Your task to perform on an android device: Add "razer nari" to the cart on ebay.com Image 0: 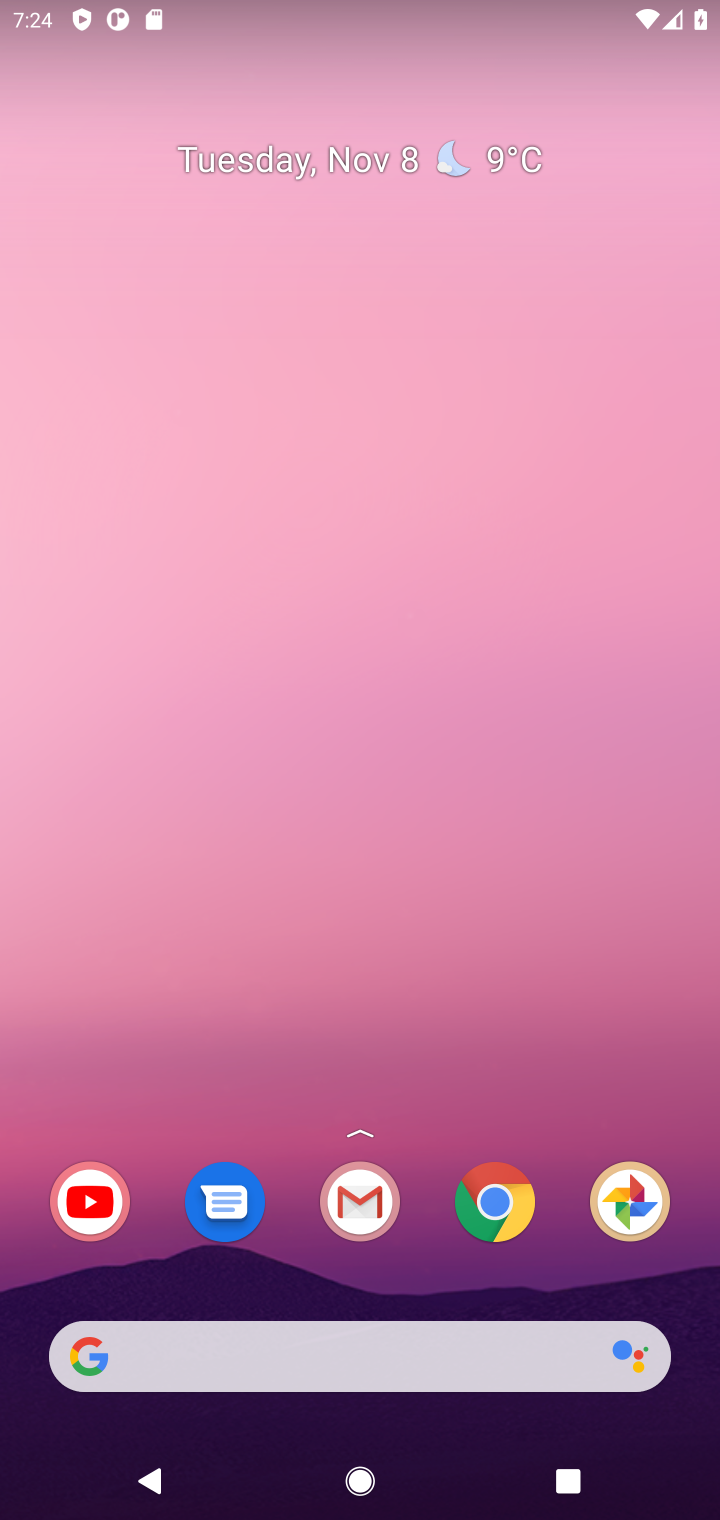
Step 0: click (285, 1359)
Your task to perform on an android device: Add "razer nari" to the cart on ebay.com Image 1: 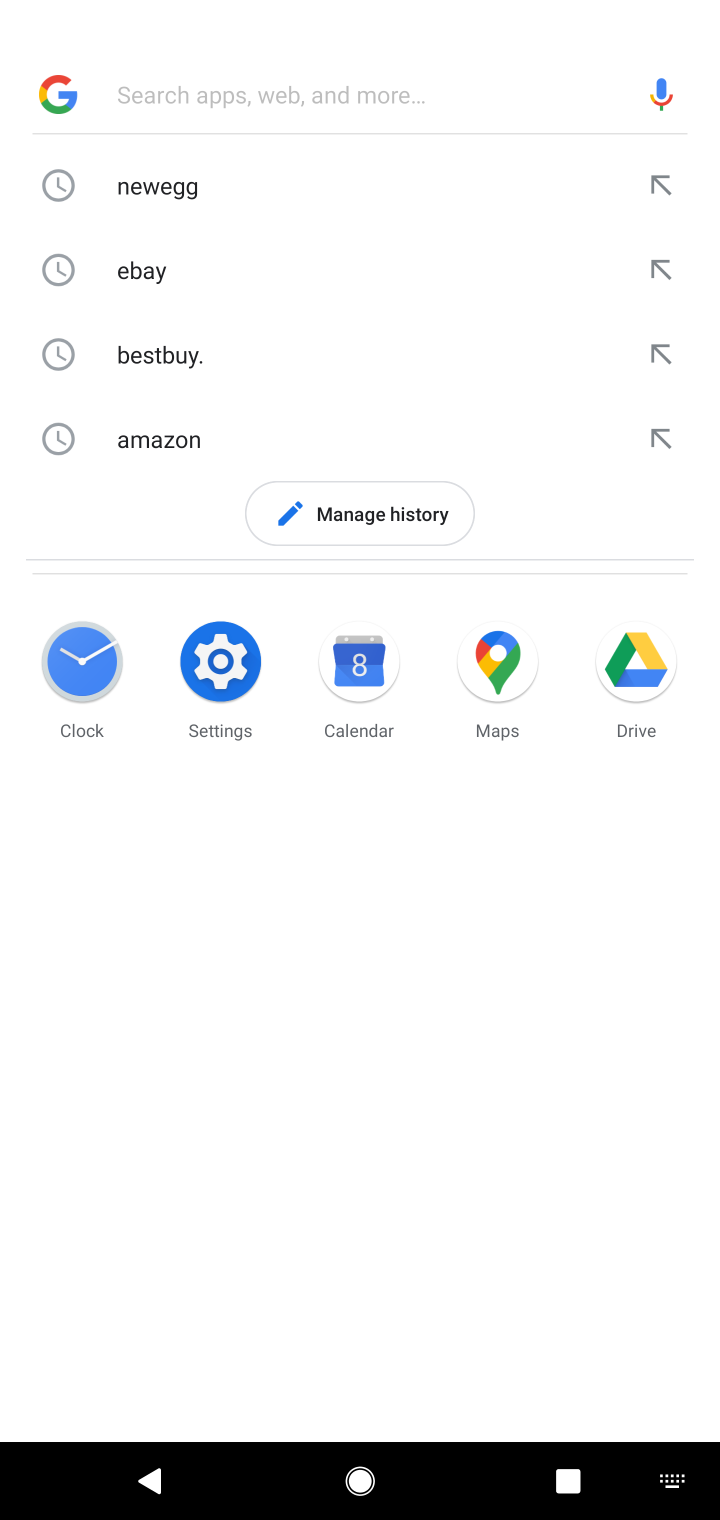
Step 1: type "ebay.com"
Your task to perform on an android device: Add "razer nari" to the cart on ebay.com Image 2: 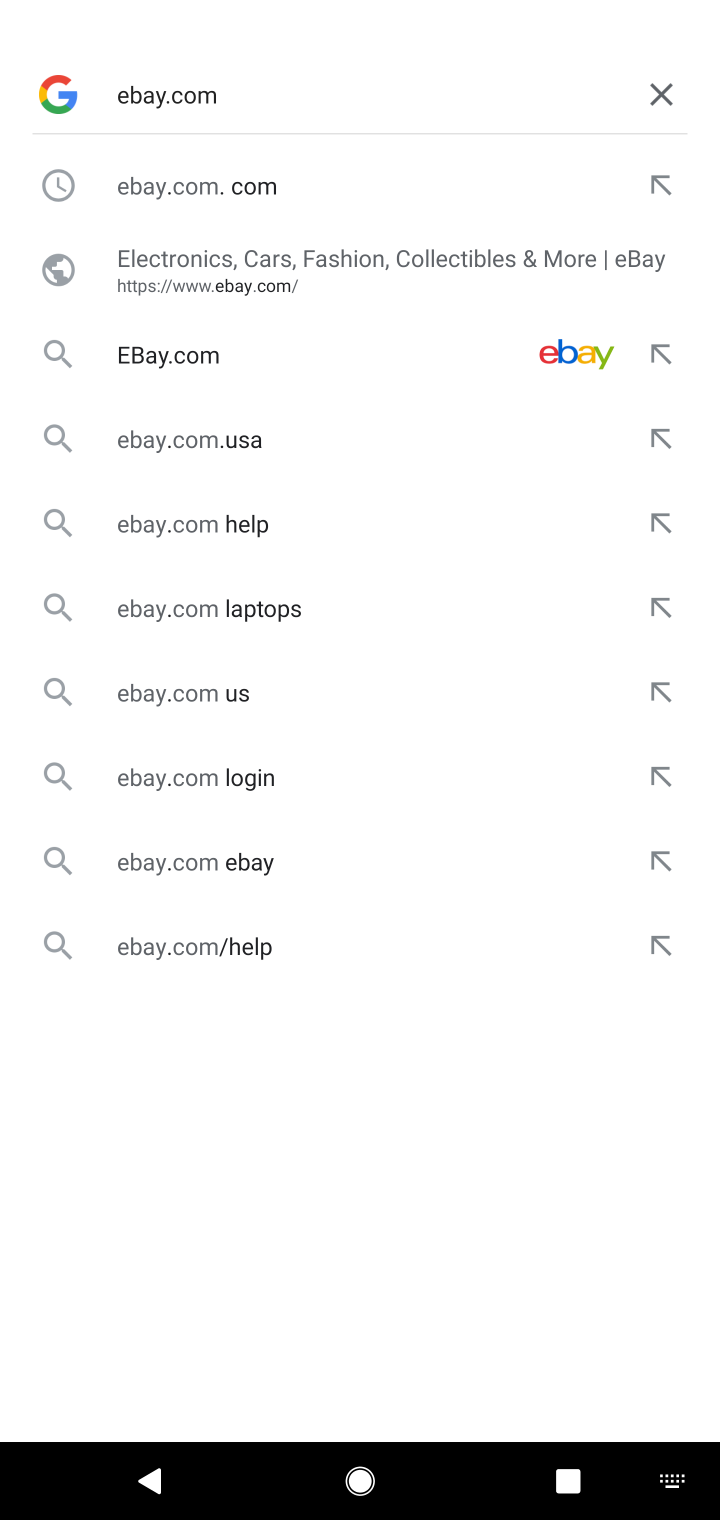
Step 2: press enter
Your task to perform on an android device: Add "razer nari" to the cart on ebay.com Image 3: 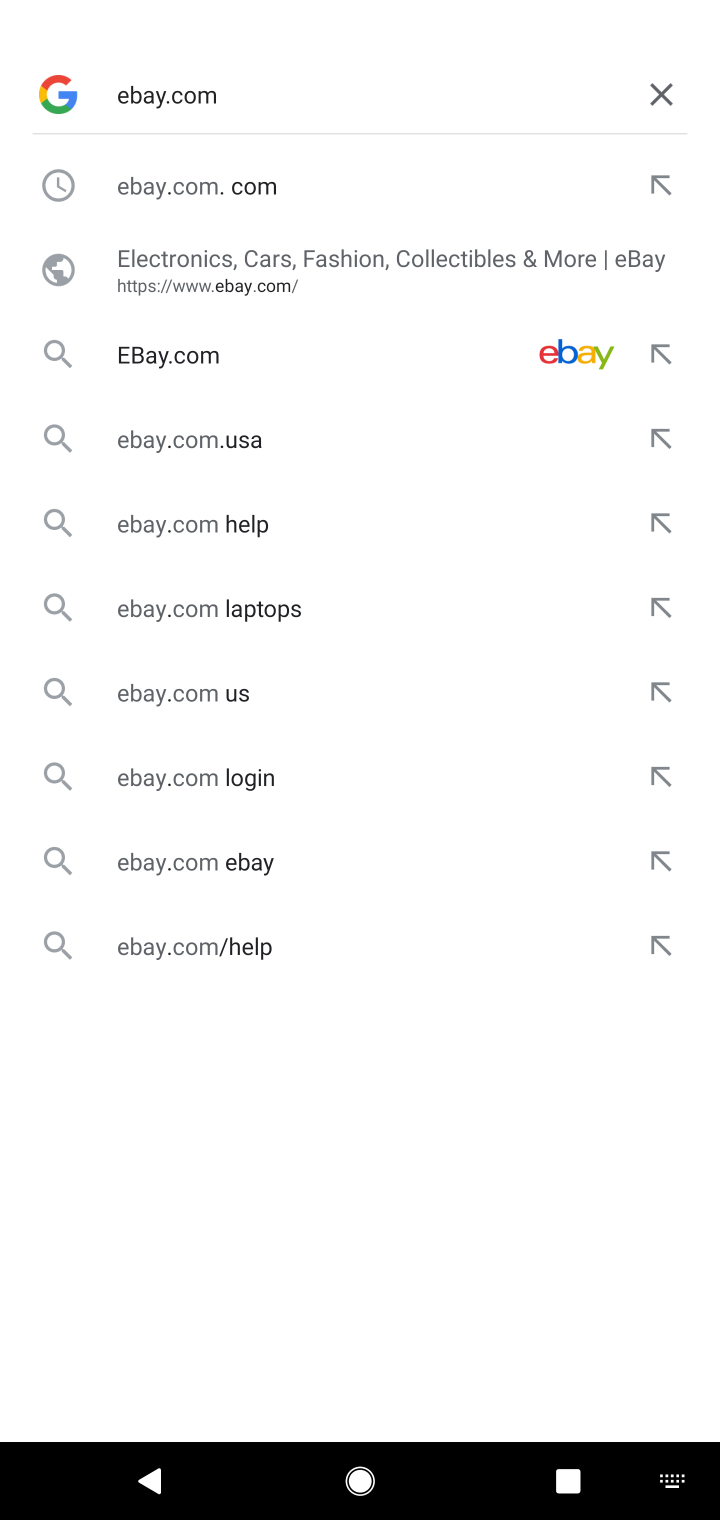
Step 3: type ""
Your task to perform on an android device: Add "razer nari" to the cart on ebay.com Image 4: 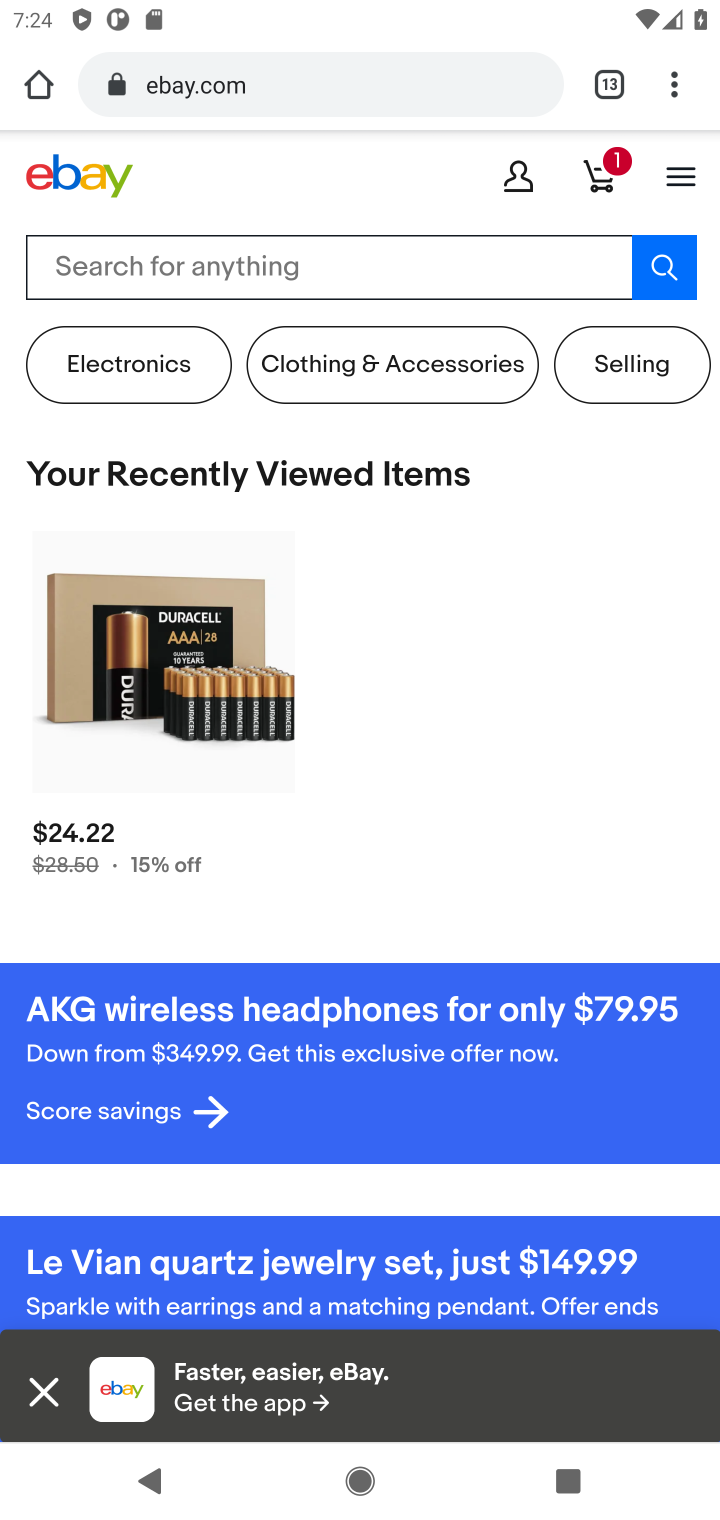
Step 4: click (204, 265)
Your task to perform on an android device: Add "razer nari" to the cart on ebay.com Image 5: 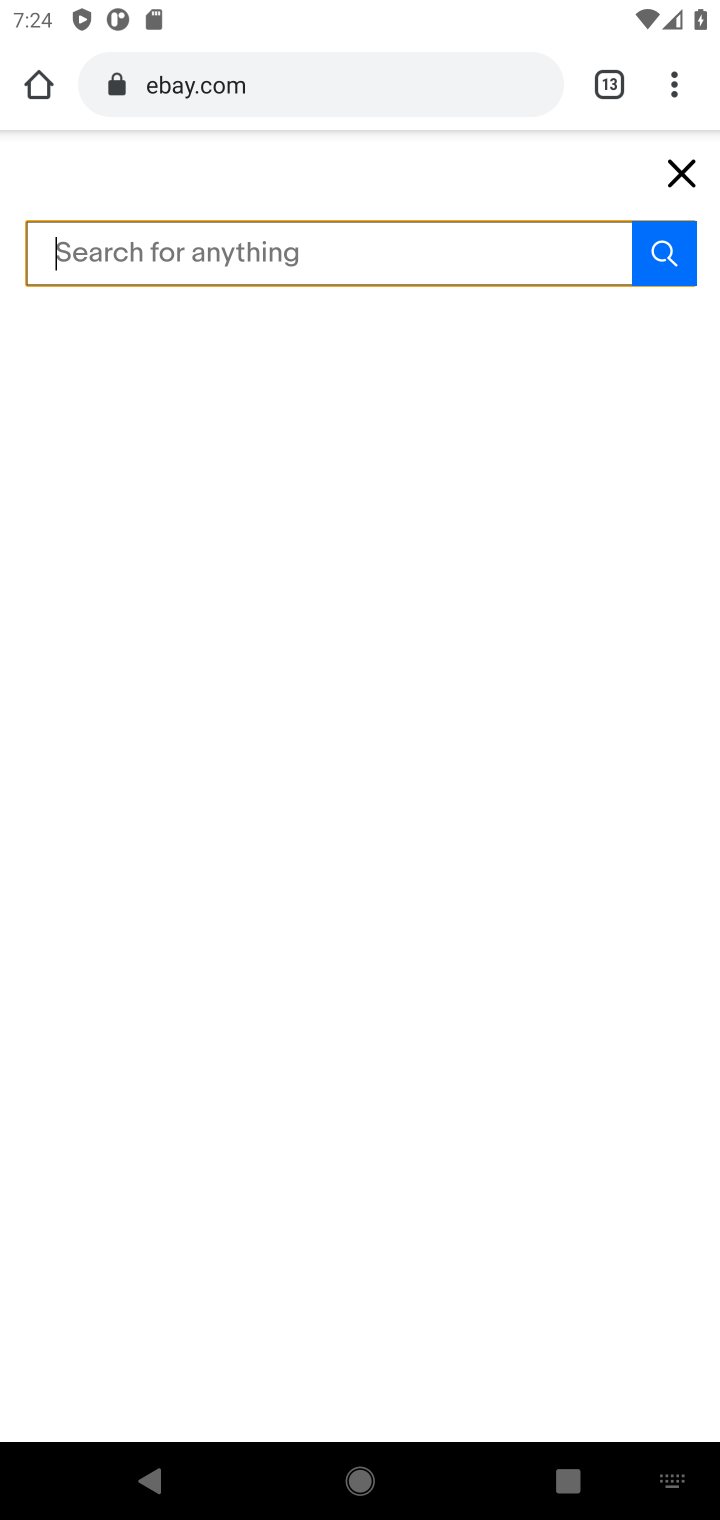
Step 5: type "razer nari"
Your task to perform on an android device: Add "razer nari" to the cart on ebay.com Image 6: 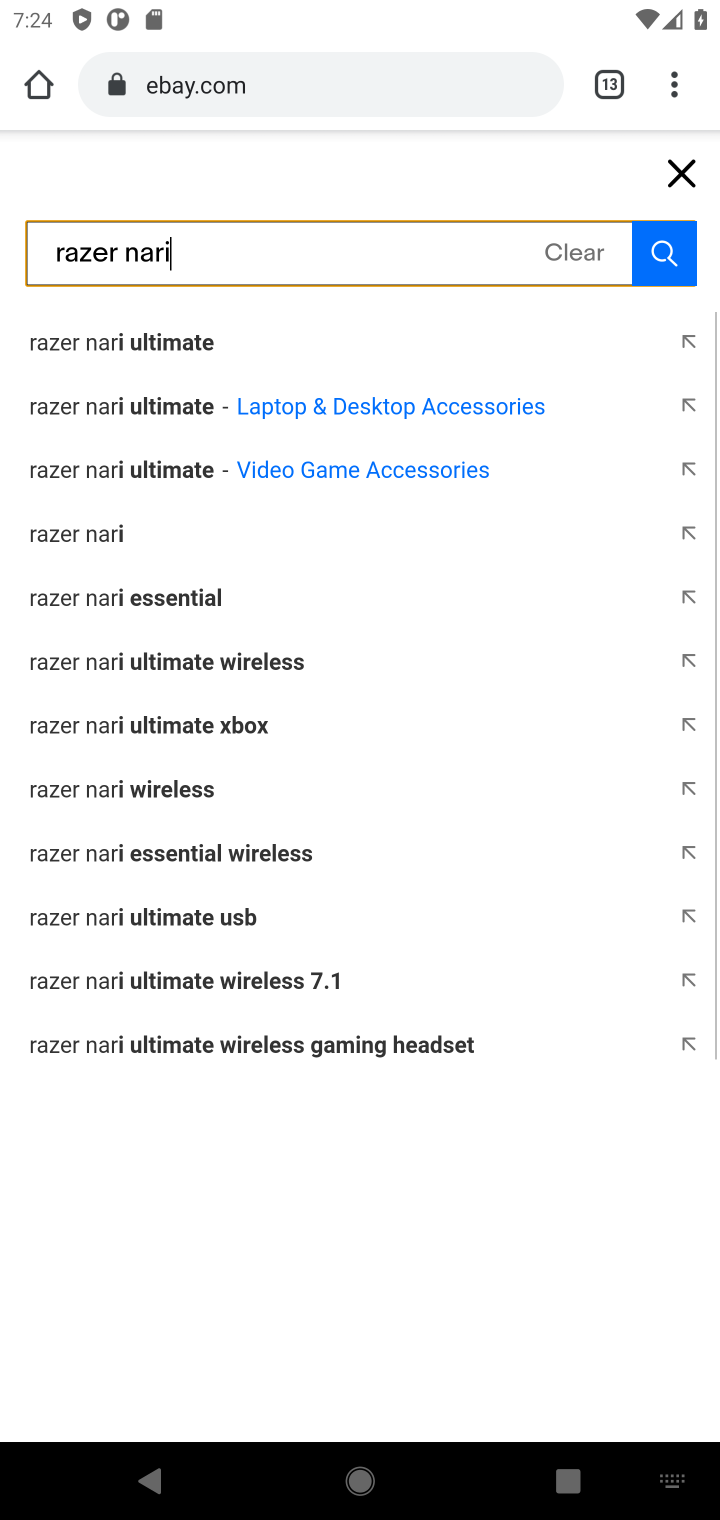
Step 6: press enter
Your task to perform on an android device: Add "razer nari" to the cart on ebay.com Image 7: 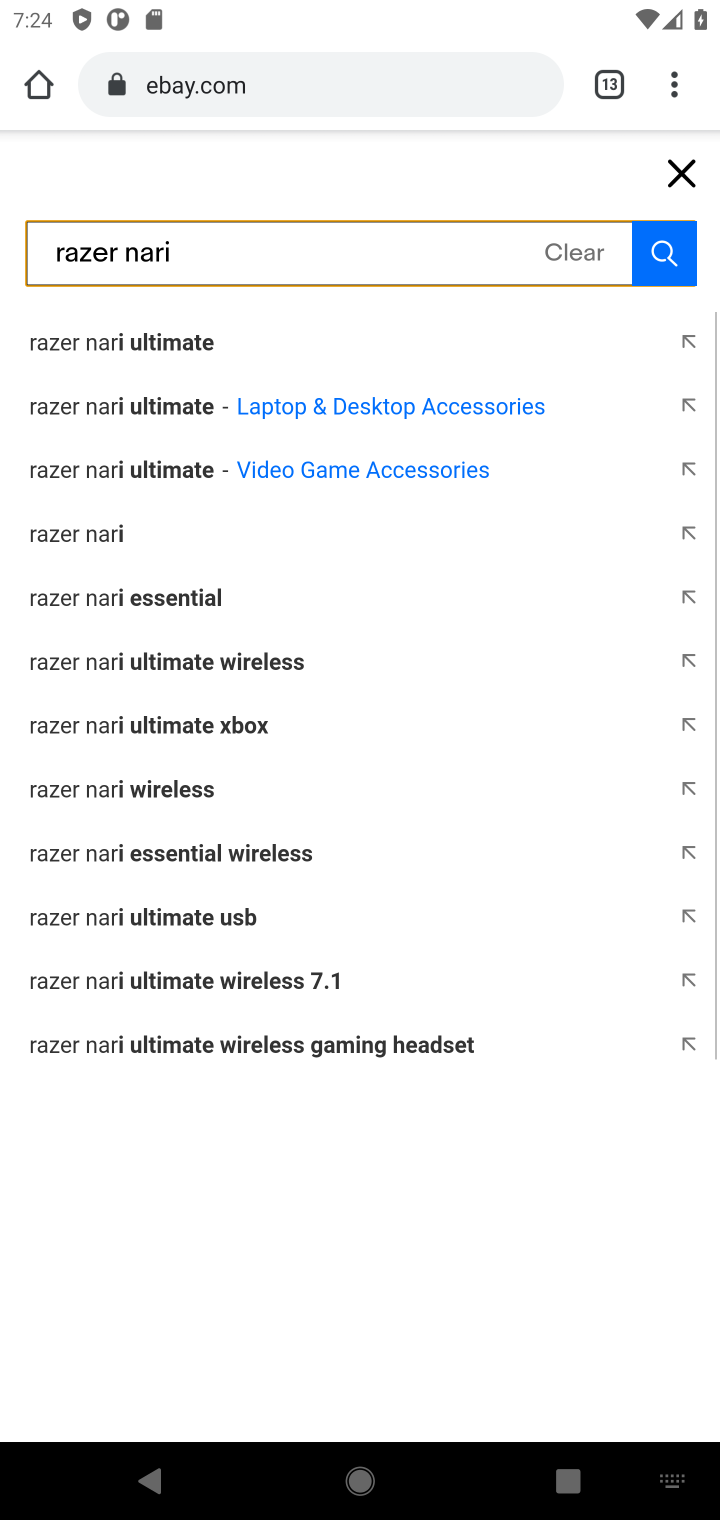
Step 7: type ""
Your task to perform on an android device: Add "razer nari" to the cart on ebay.com Image 8: 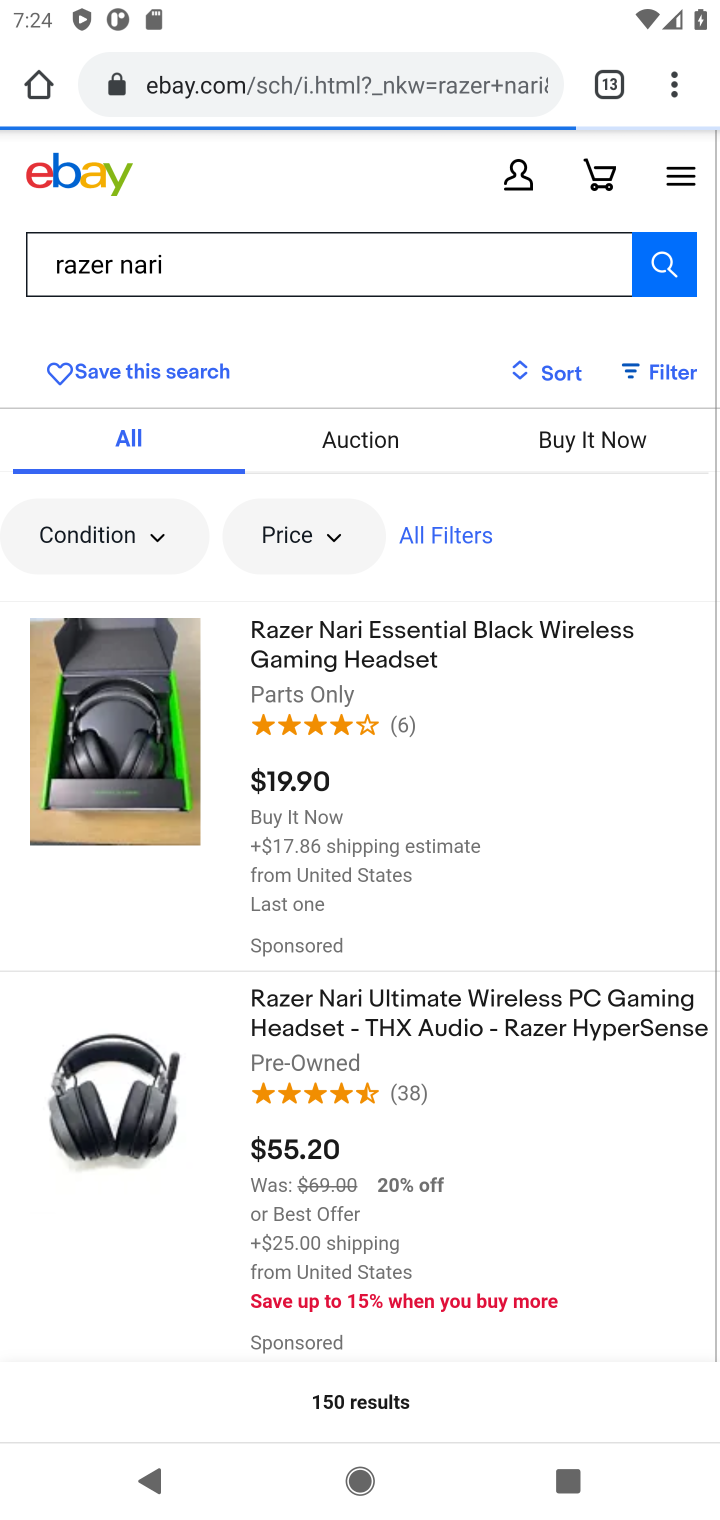
Step 8: click (656, 251)
Your task to perform on an android device: Add "razer nari" to the cart on ebay.com Image 9: 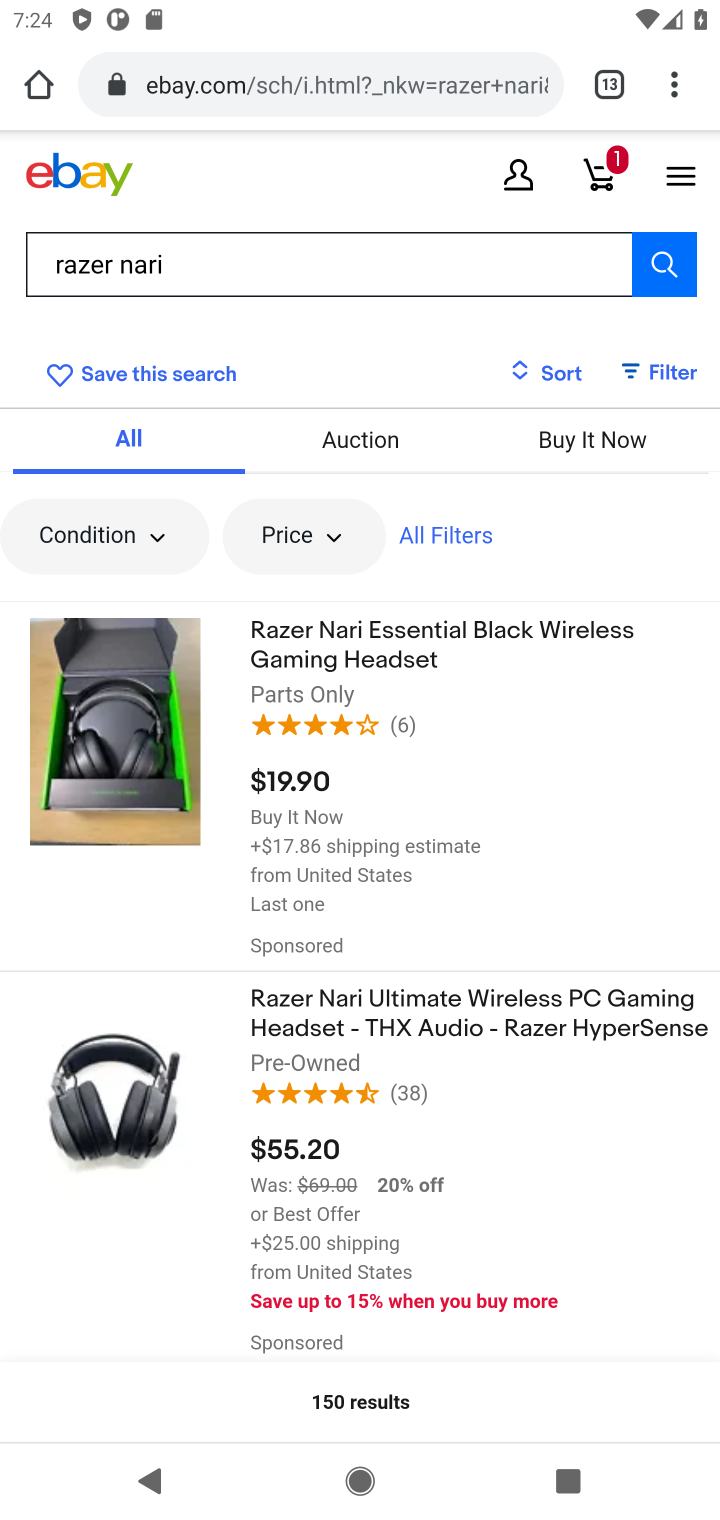
Step 9: click (368, 620)
Your task to perform on an android device: Add "razer nari" to the cart on ebay.com Image 10: 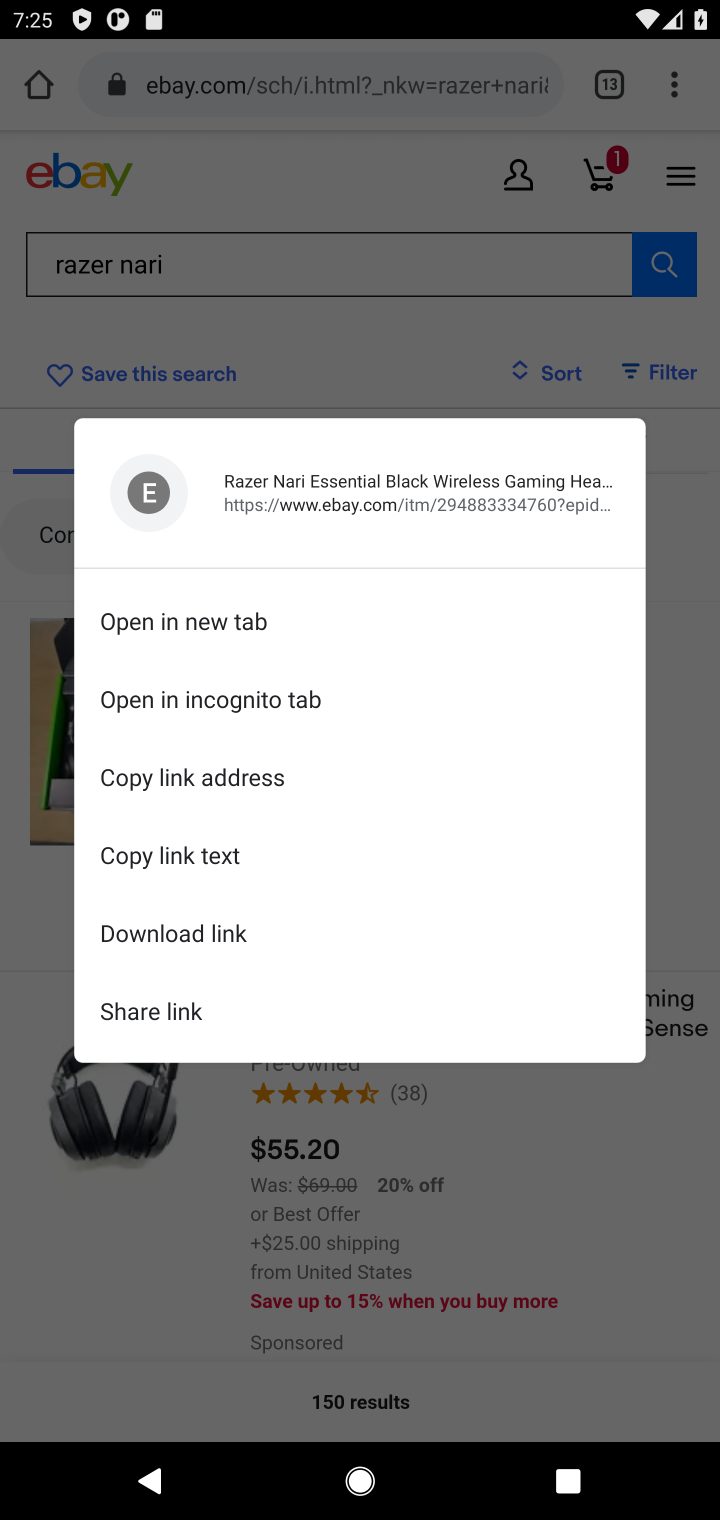
Step 10: click (671, 637)
Your task to perform on an android device: Add "razer nari" to the cart on ebay.com Image 11: 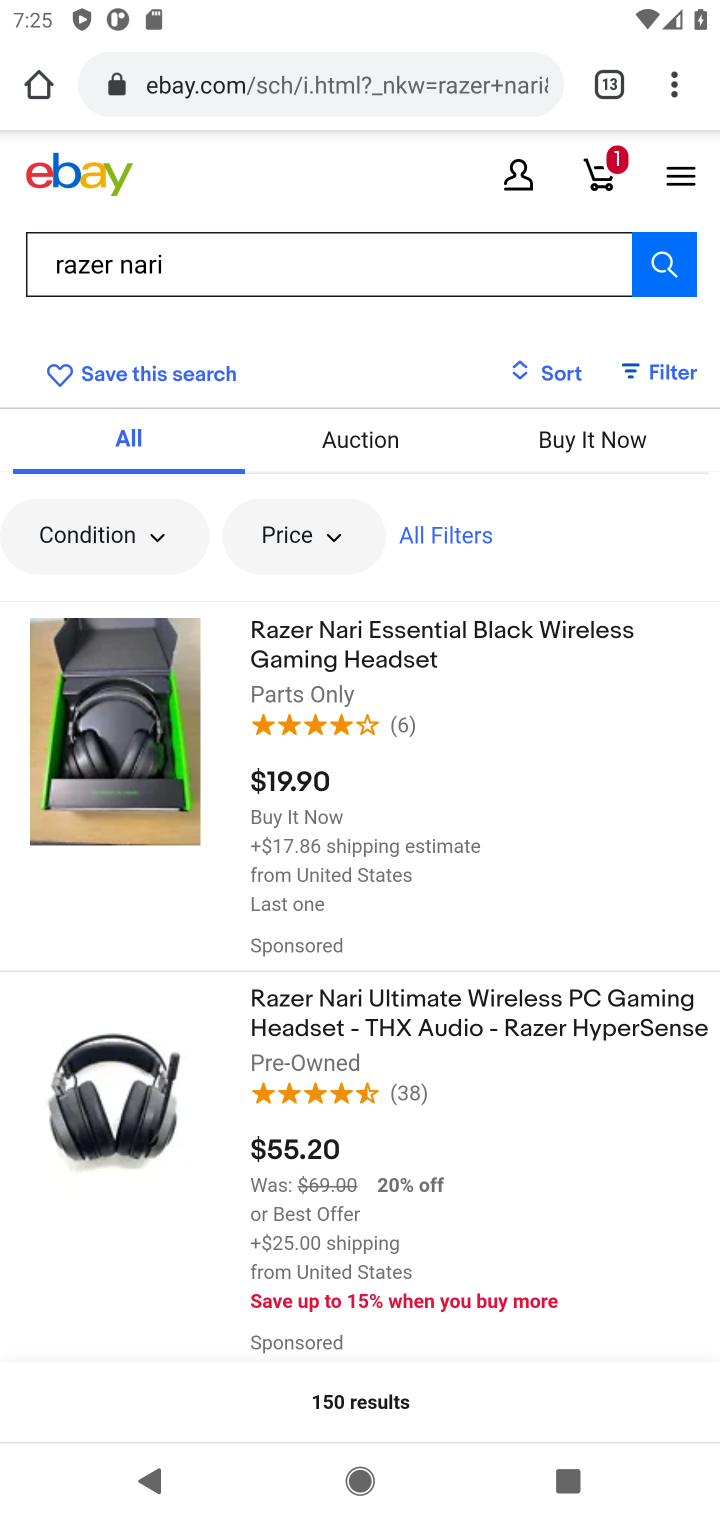
Step 11: click (284, 666)
Your task to perform on an android device: Add "razer nari" to the cart on ebay.com Image 12: 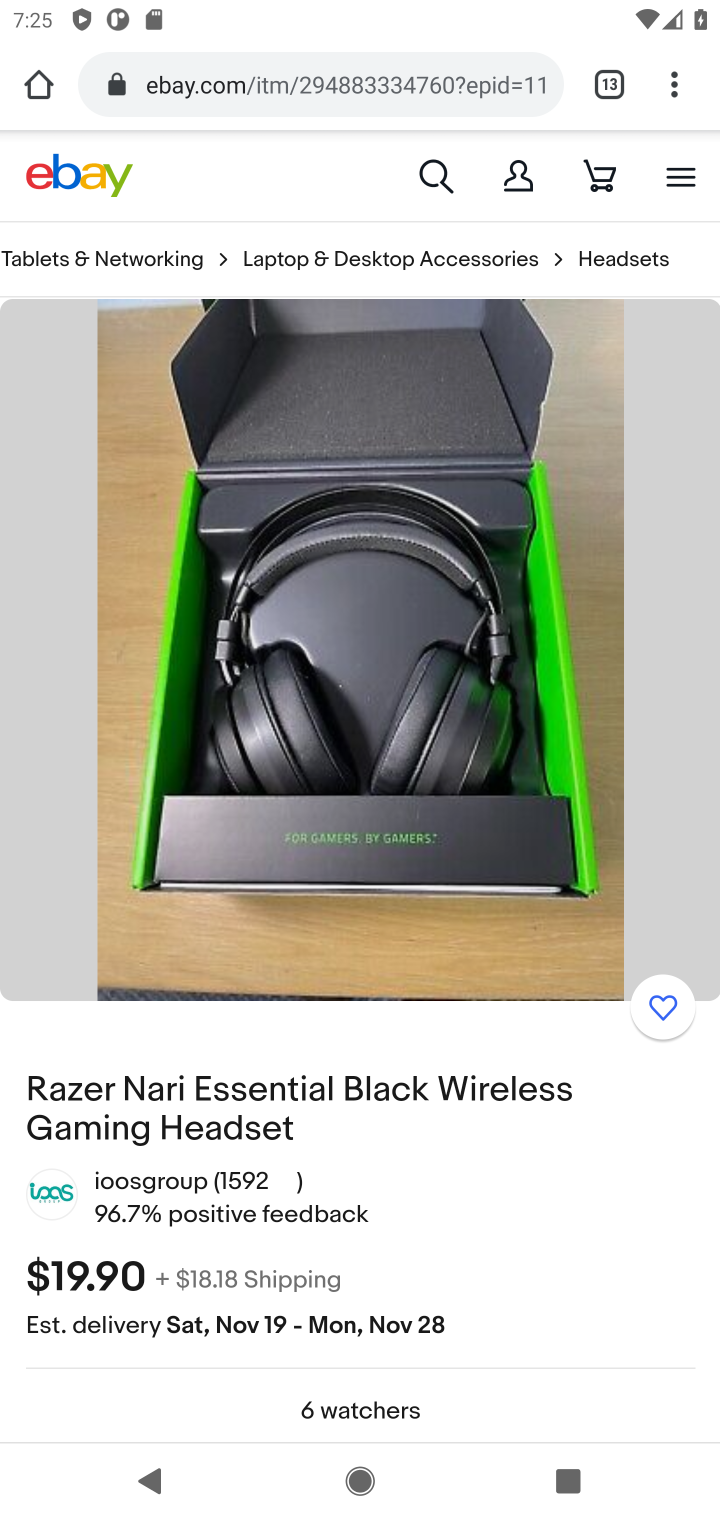
Step 12: drag from (272, 1177) to (303, 524)
Your task to perform on an android device: Add "razer nari" to the cart on ebay.com Image 13: 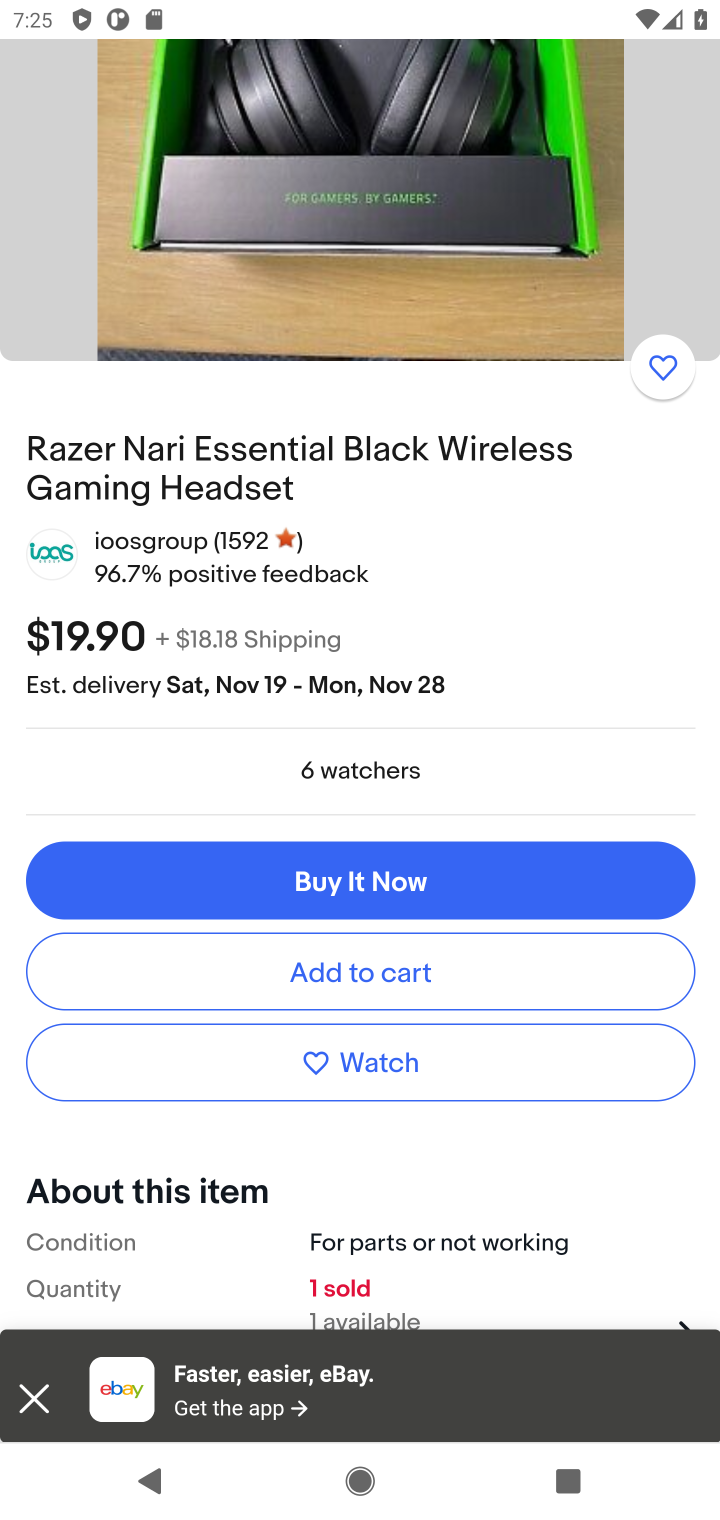
Step 13: click (364, 961)
Your task to perform on an android device: Add "razer nari" to the cart on ebay.com Image 14: 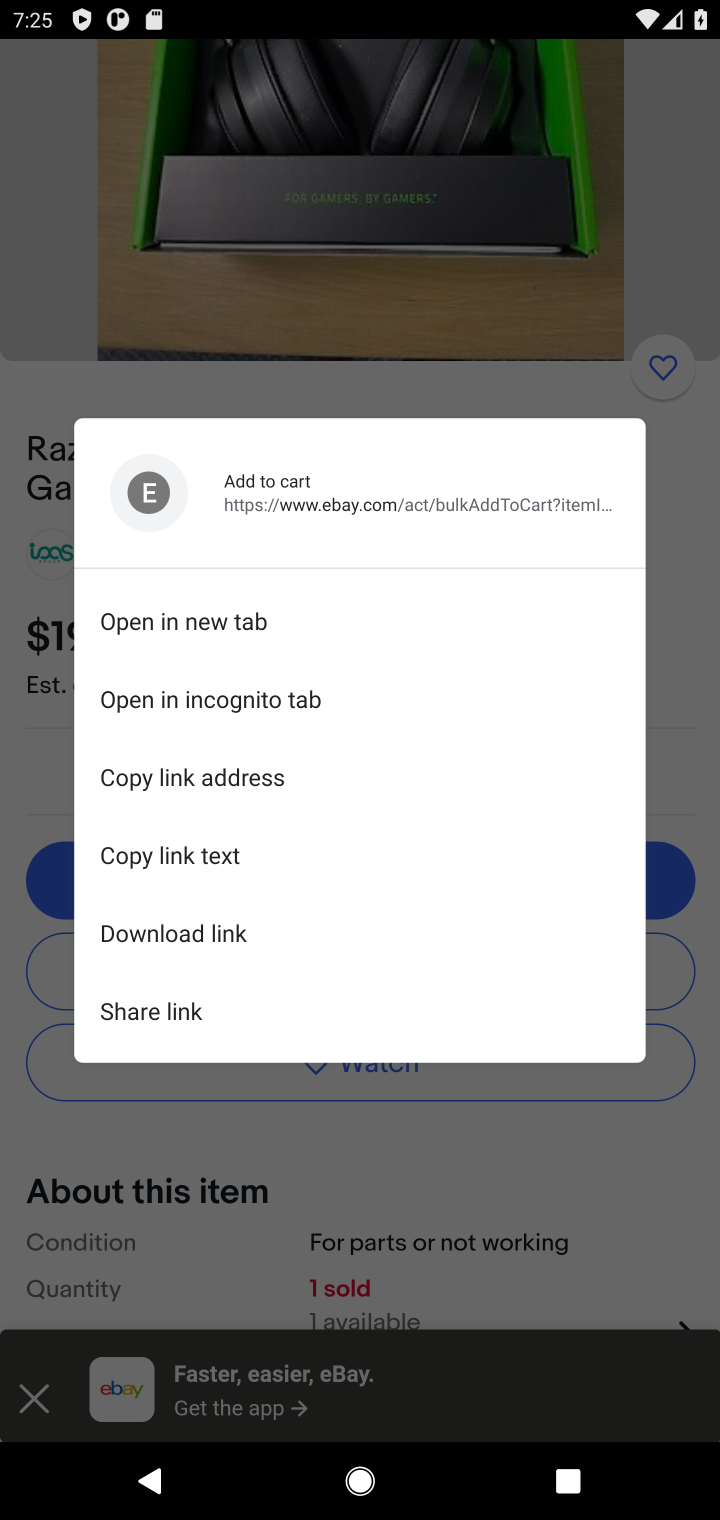
Step 14: click (348, 1152)
Your task to perform on an android device: Add "razer nari" to the cart on ebay.com Image 15: 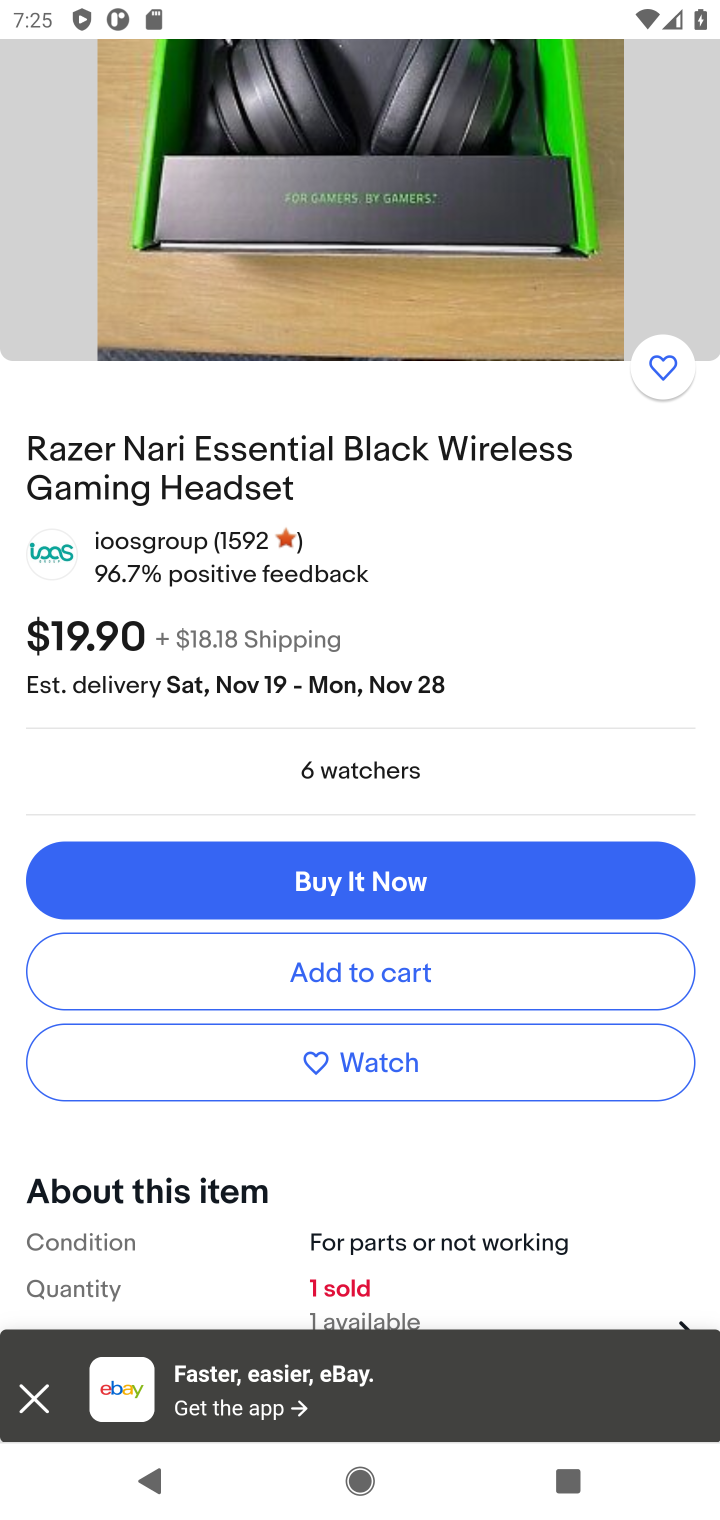
Step 15: click (360, 977)
Your task to perform on an android device: Add "razer nari" to the cart on ebay.com Image 16: 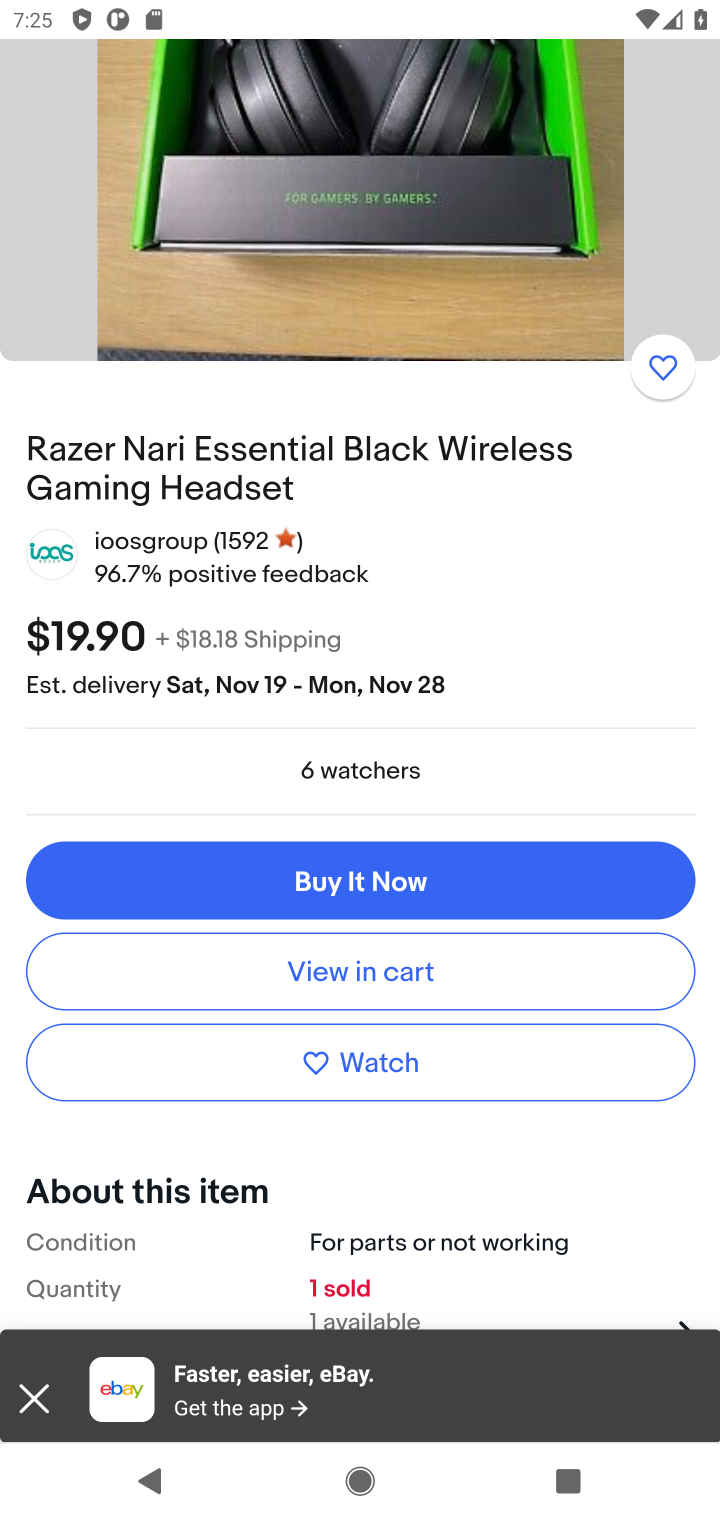
Step 16: drag from (643, 423) to (557, 1492)
Your task to perform on an android device: Add "razer nari" to the cart on ebay.com Image 17: 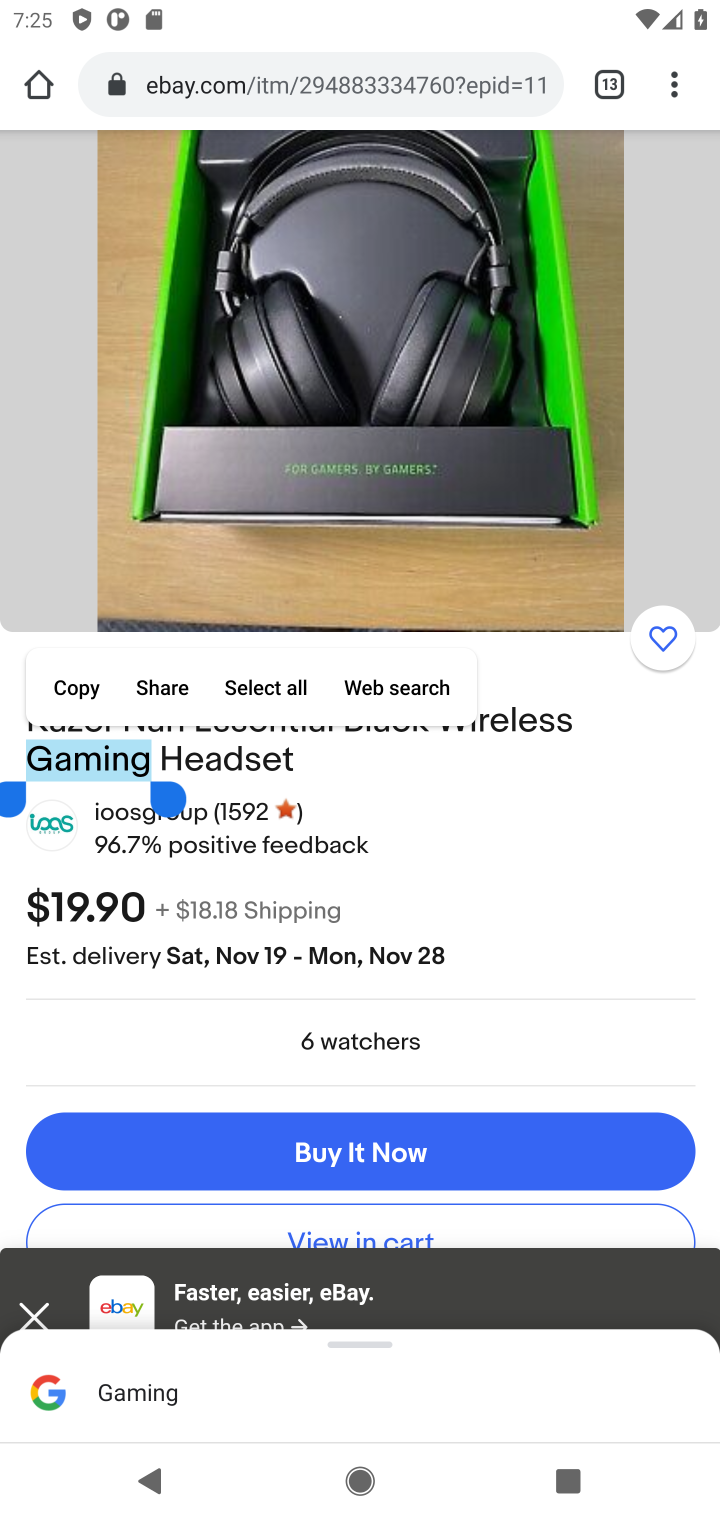
Step 17: click (40, 1313)
Your task to perform on an android device: Add "razer nari" to the cart on ebay.com Image 18: 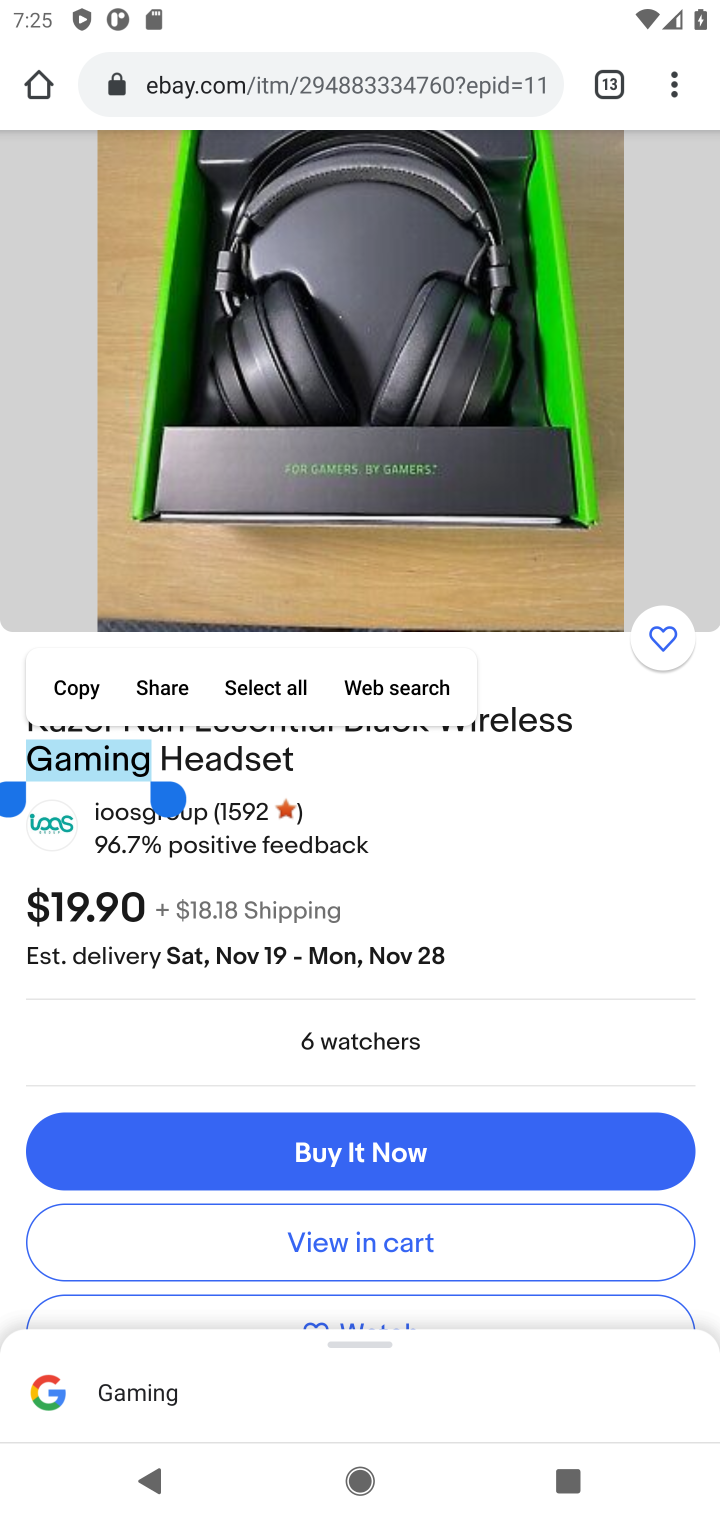
Step 18: drag from (654, 695) to (654, 1258)
Your task to perform on an android device: Add "razer nari" to the cart on ebay.com Image 19: 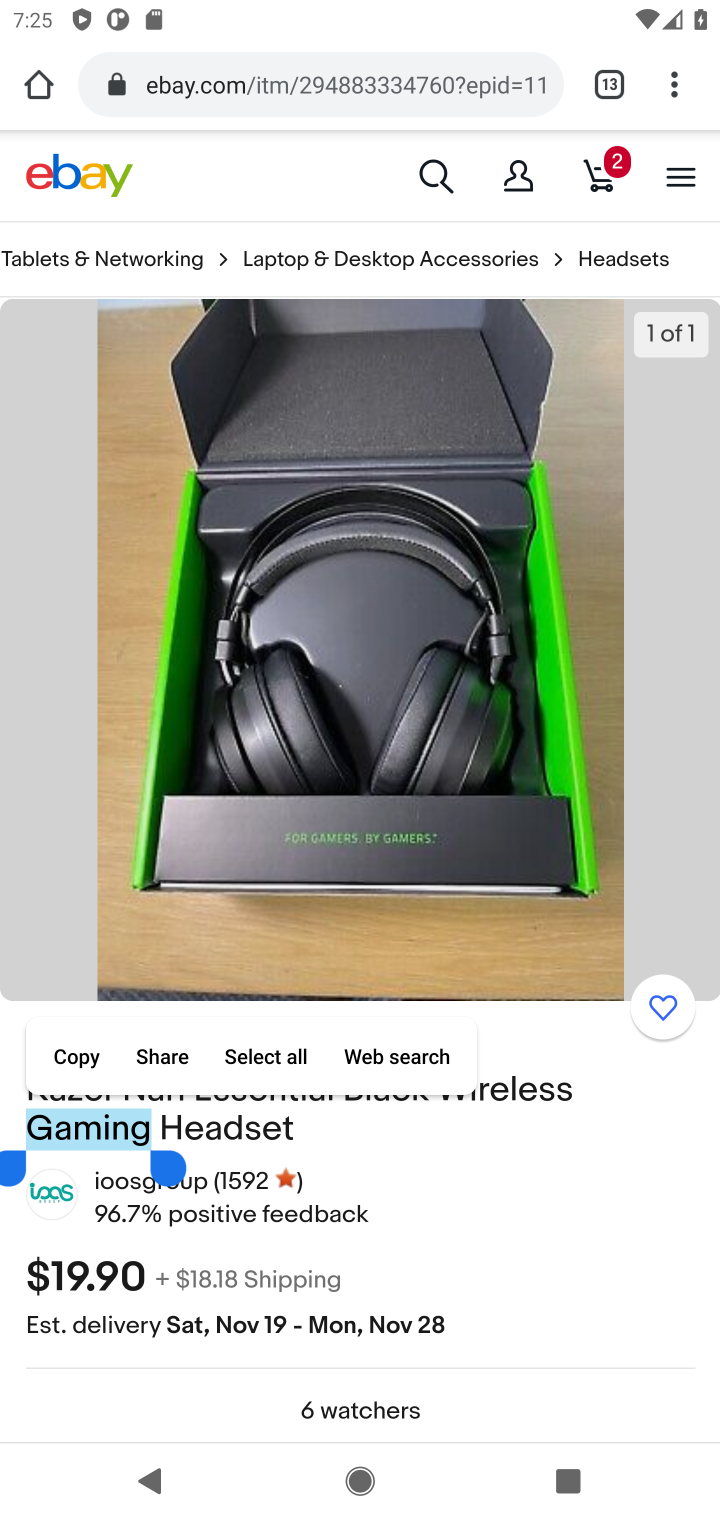
Step 19: click (603, 175)
Your task to perform on an android device: Add "razer nari" to the cart on ebay.com Image 20: 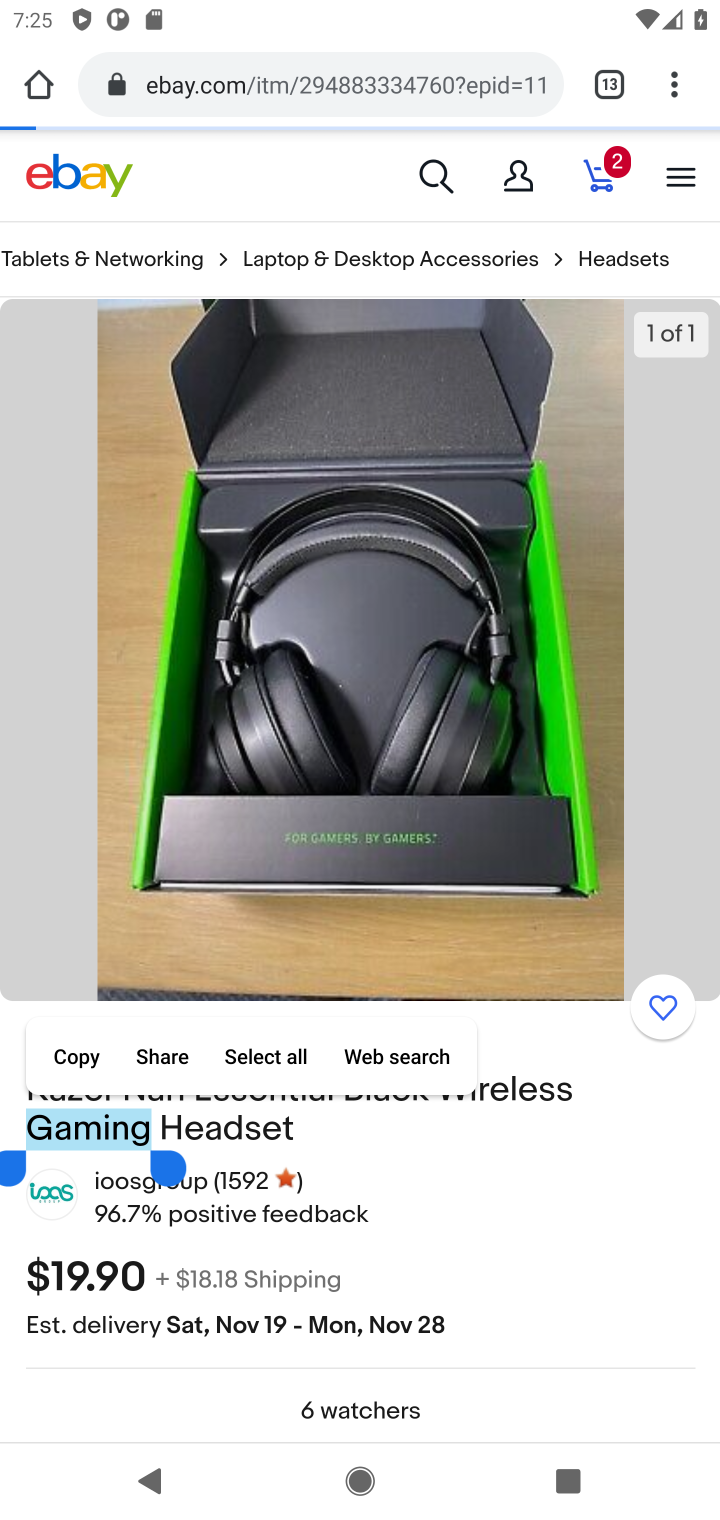
Step 20: task complete